Your task to perform on an android device: Go to Maps Image 0: 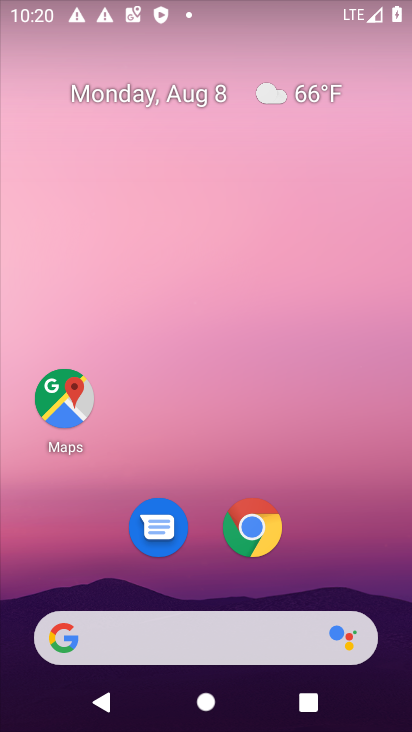
Step 0: click (49, 393)
Your task to perform on an android device: Go to Maps Image 1: 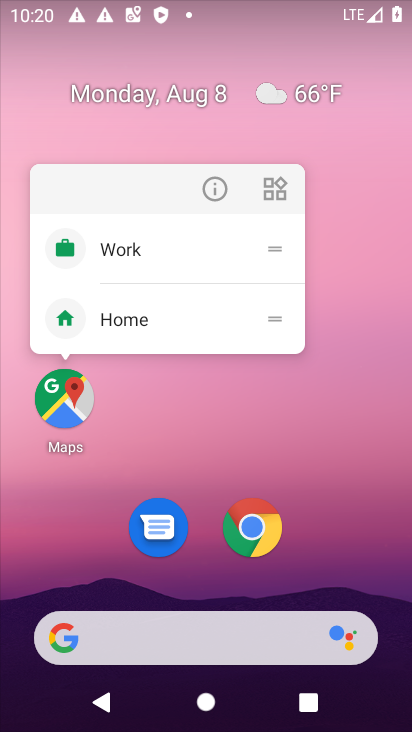
Step 1: click (49, 393)
Your task to perform on an android device: Go to Maps Image 2: 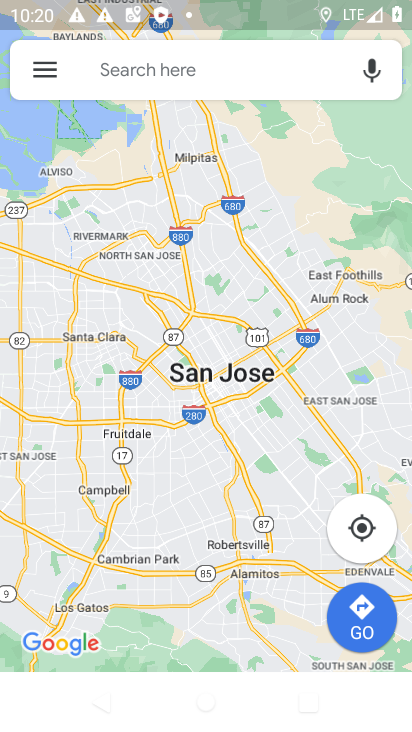
Step 2: task complete